Your task to perform on an android device: What's on my calendar tomorrow? Image 0: 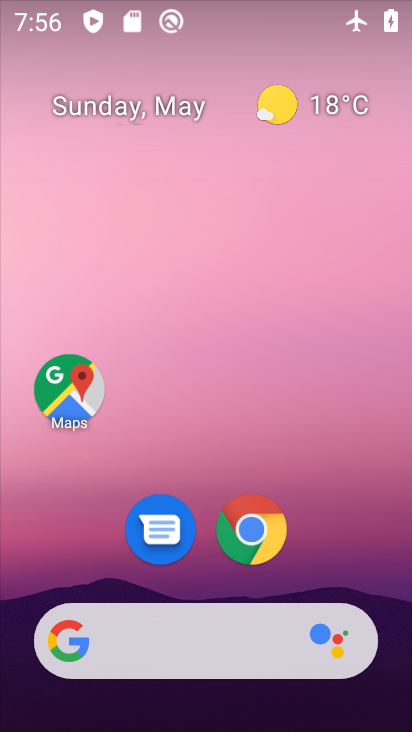
Step 0: drag from (356, 491) to (372, 23)
Your task to perform on an android device: What's on my calendar tomorrow? Image 1: 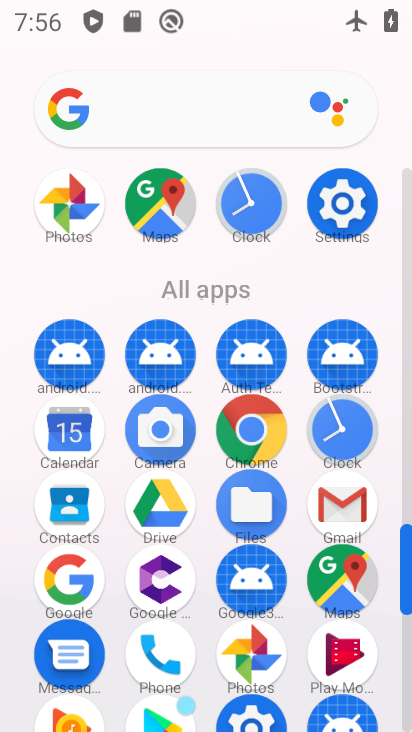
Step 1: click (70, 432)
Your task to perform on an android device: What's on my calendar tomorrow? Image 2: 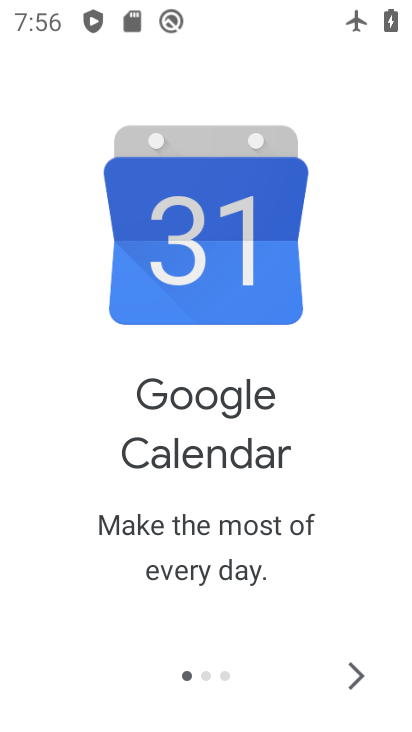
Step 2: click (352, 686)
Your task to perform on an android device: What's on my calendar tomorrow? Image 3: 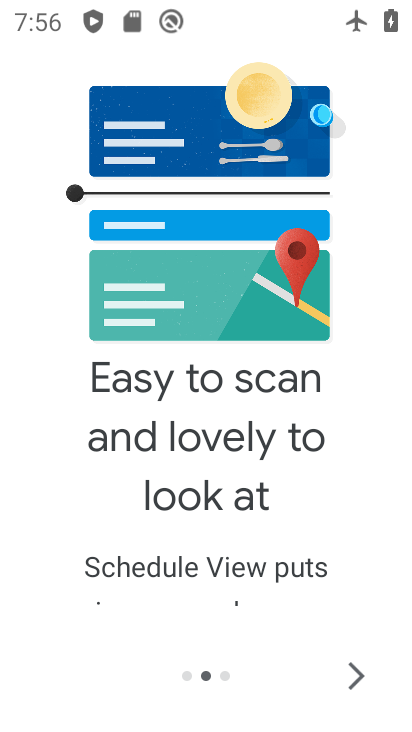
Step 3: click (353, 686)
Your task to perform on an android device: What's on my calendar tomorrow? Image 4: 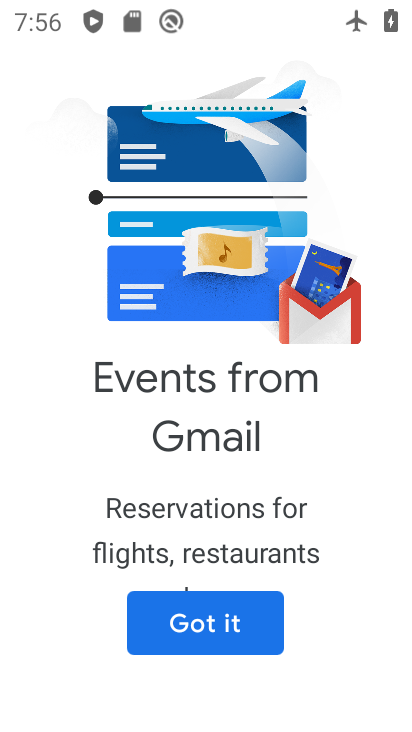
Step 4: click (184, 634)
Your task to perform on an android device: What's on my calendar tomorrow? Image 5: 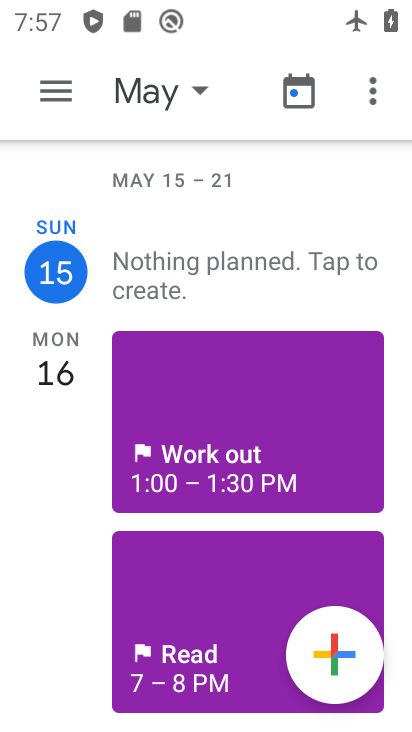
Step 5: drag from (202, 597) to (202, 304)
Your task to perform on an android device: What's on my calendar tomorrow? Image 6: 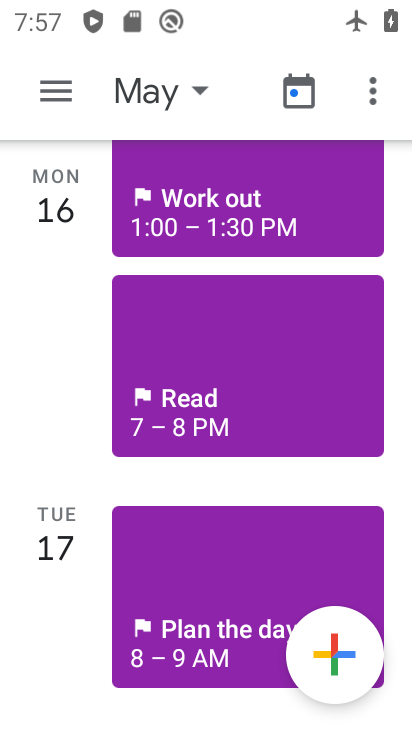
Step 6: drag from (202, 304) to (191, 560)
Your task to perform on an android device: What's on my calendar tomorrow? Image 7: 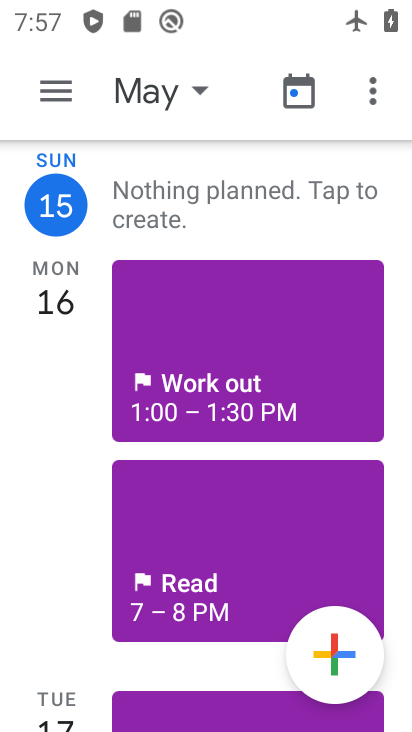
Step 7: click (218, 398)
Your task to perform on an android device: What's on my calendar tomorrow? Image 8: 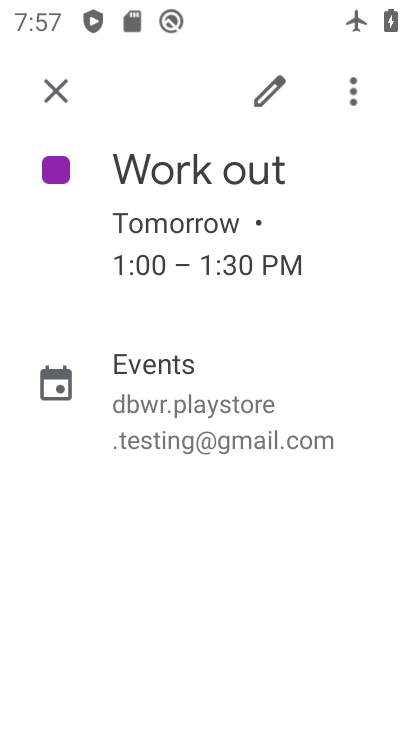
Step 8: task complete